Your task to perform on an android device: What's the weather going to be tomorrow? Image 0: 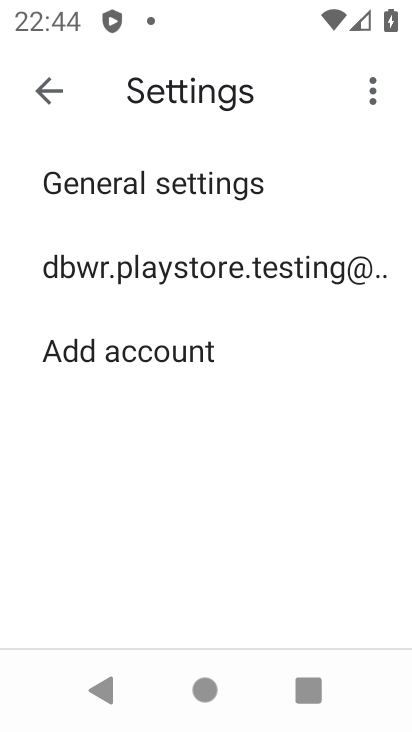
Step 0: press home button
Your task to perform on an android device: What's the weather going to be tomorrow? Image 1: 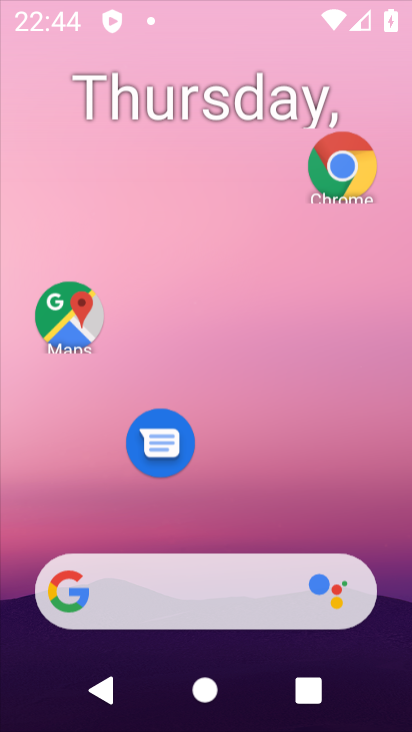
Step 1: drag from (289, 541) to (305, 3)
Your task to perform on an android device: What's the weather going to be tomorrow? Image 2: 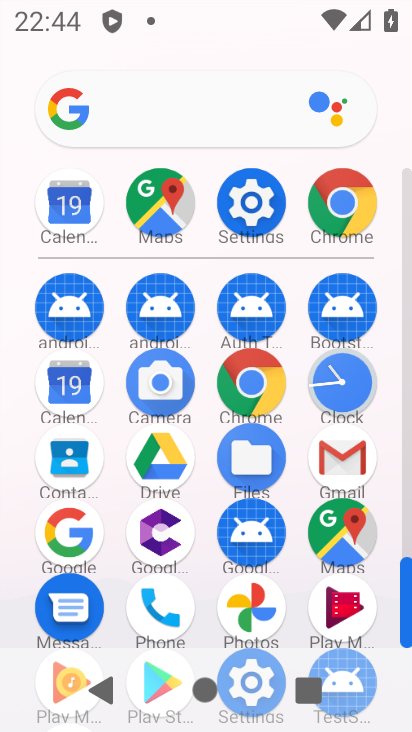
Step 2: click (208, 119)
Your task to perform on an android device: What's the weather going to be tomorrow? Image 3: 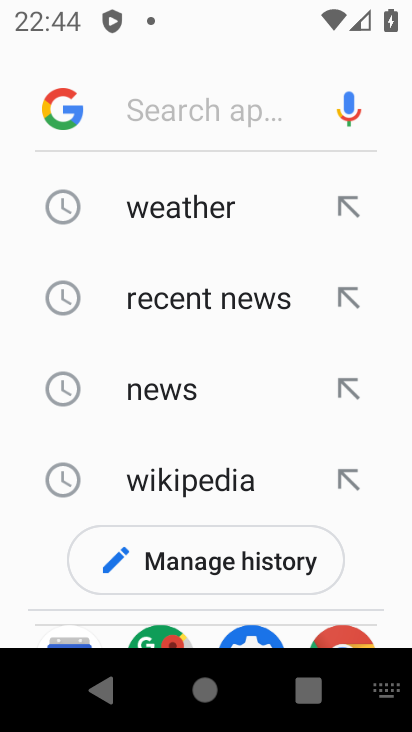
Step 3: type "What's the weather going to be tomorrow?"
Your task to perform on an android device: What's the weather going to be tomorrow? Image 4: 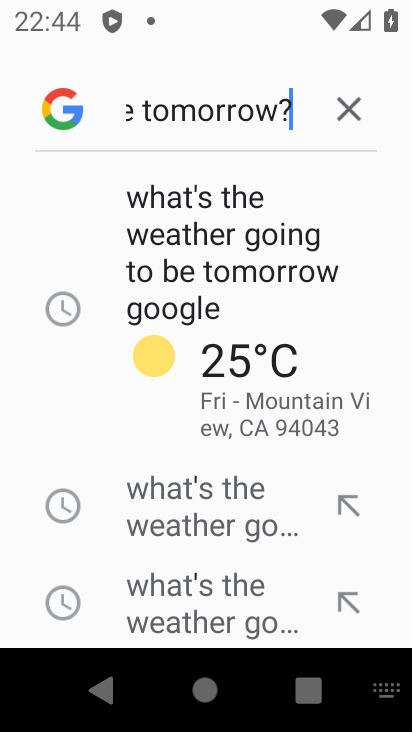
Step 4: type ""
Your task to perform on an android device: What's the weather going to be tomorrow? Image 5: 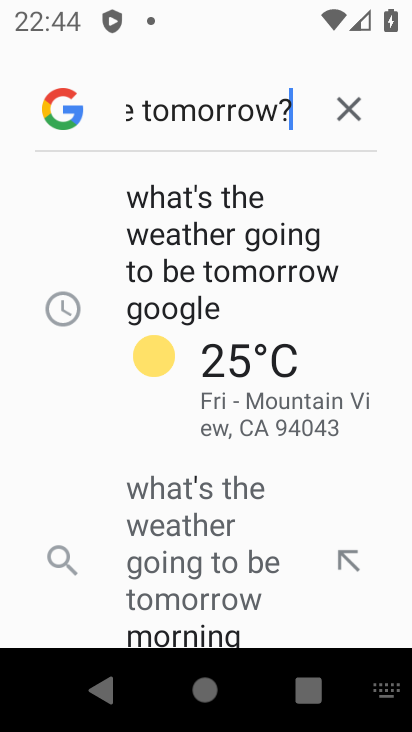
Step 5: click (179, 237)
Your task to perform on an android device: What's the weather going to be tomorrow? Image 6: 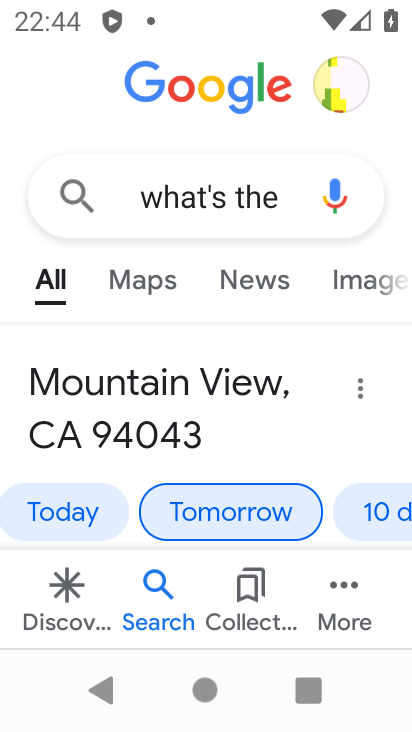
Step 6: task complete